Your task to perform on an android device: change text size in settings app Image 0: 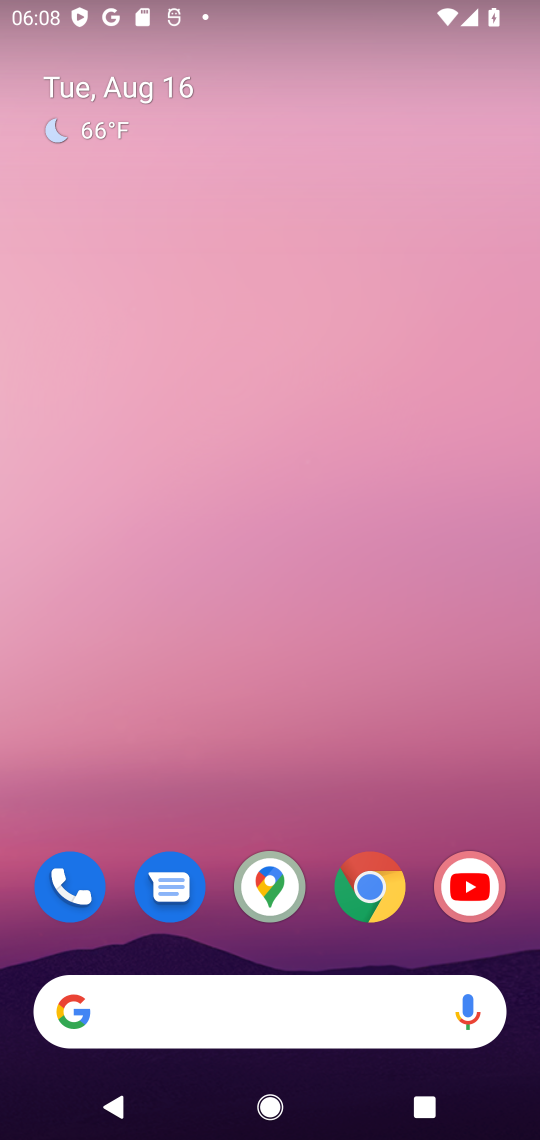
Step 0: drag from (279, 728) to (319, 61)
Your task to perform on an android device: change text size in settings app Image 1: 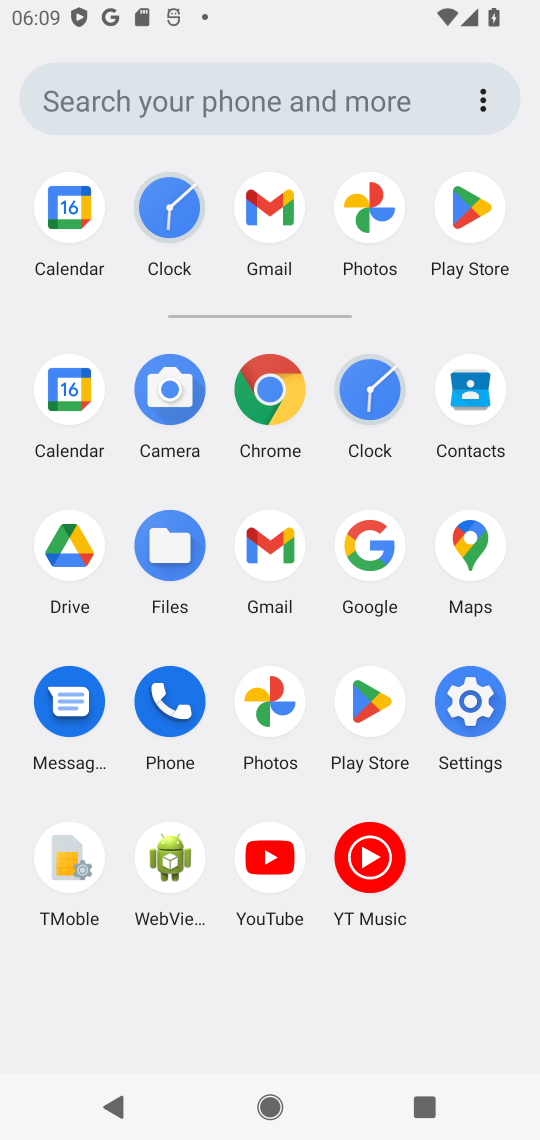
Step 1: click (497, 679)
Your task to perform on an android device: change text size in settings app Image 2: 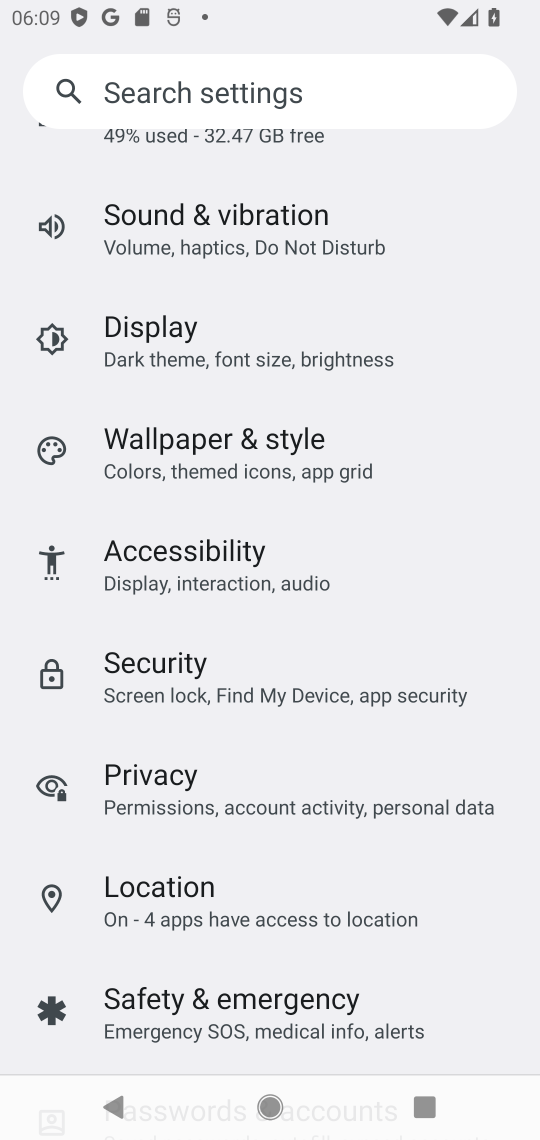
Step 2: click (302, 364)
Your task to perform on an android device: change text size in settings app Image 3: 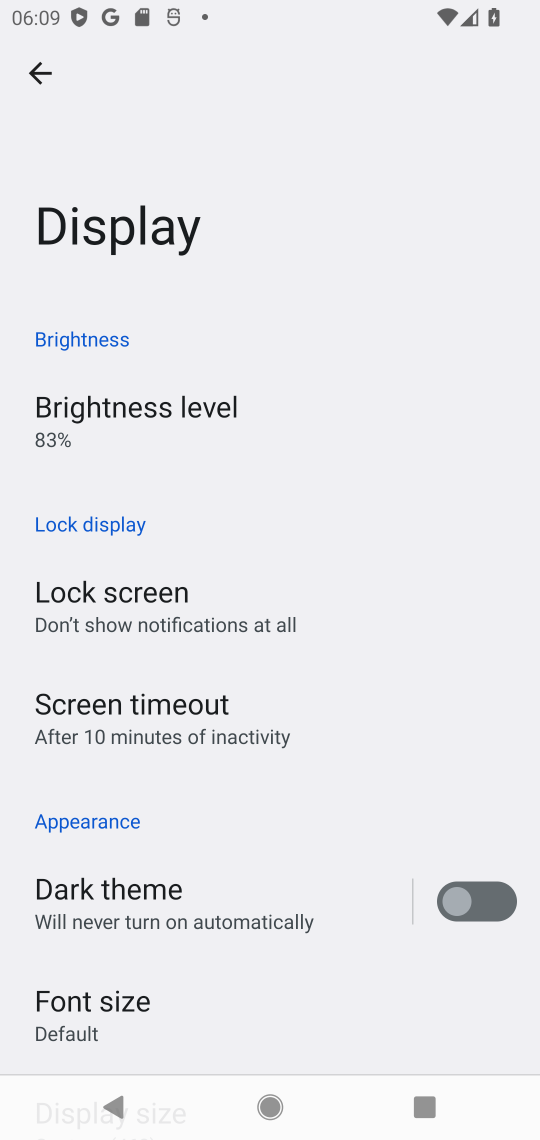
Step 3: click (106, 993)
Your task to perform on an android device: change text size in settings app Image 4: 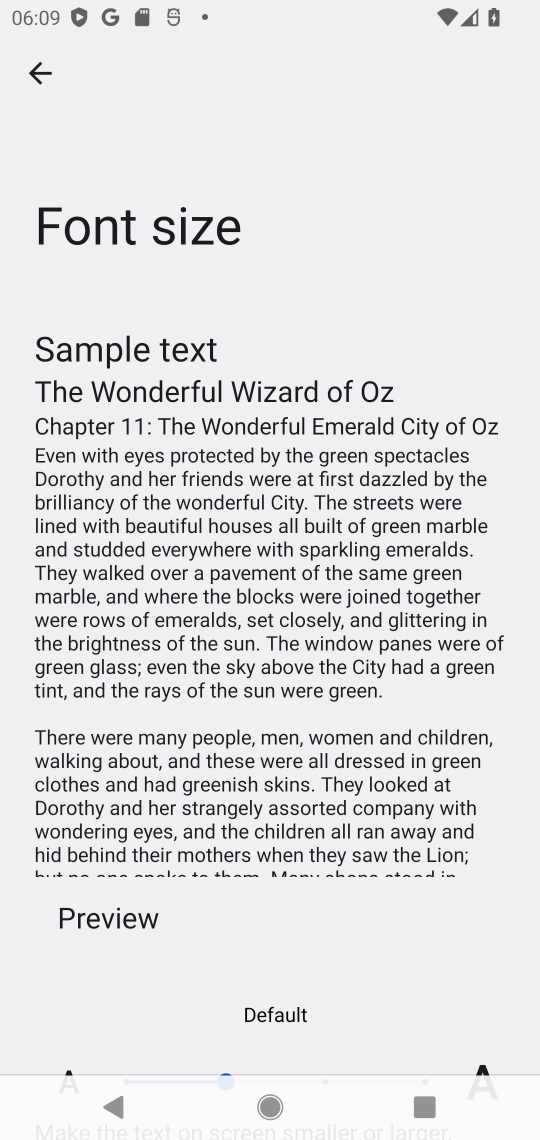
Step 4: drag from (292, 1002) to (418, 359)
Your task to perform on an android device: change text size in settings app Image 5: 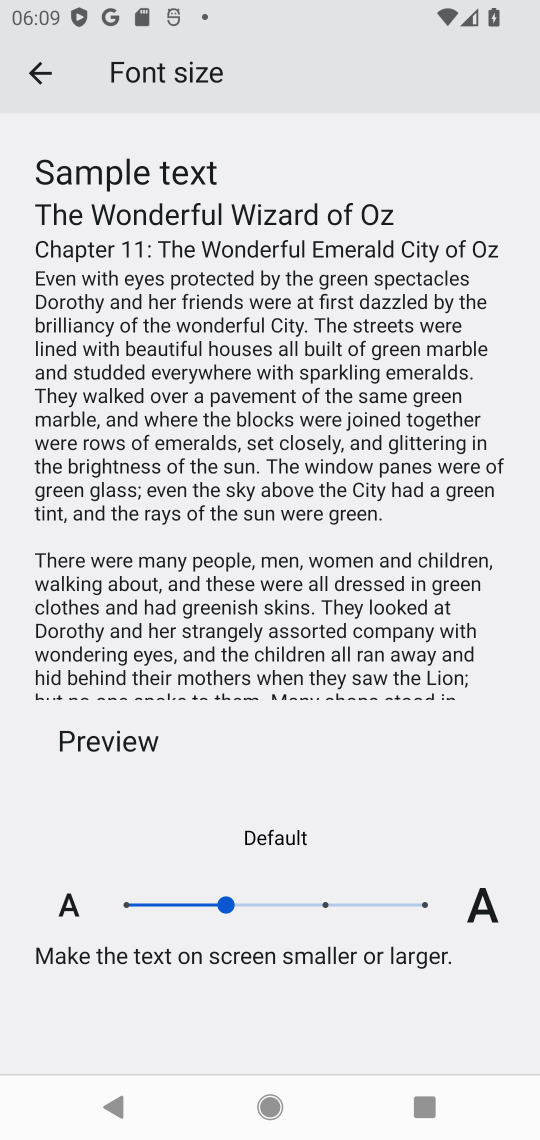
Step 5: click (192, 896)
Your task to perform on an android device: change text size in settings app Image 6: 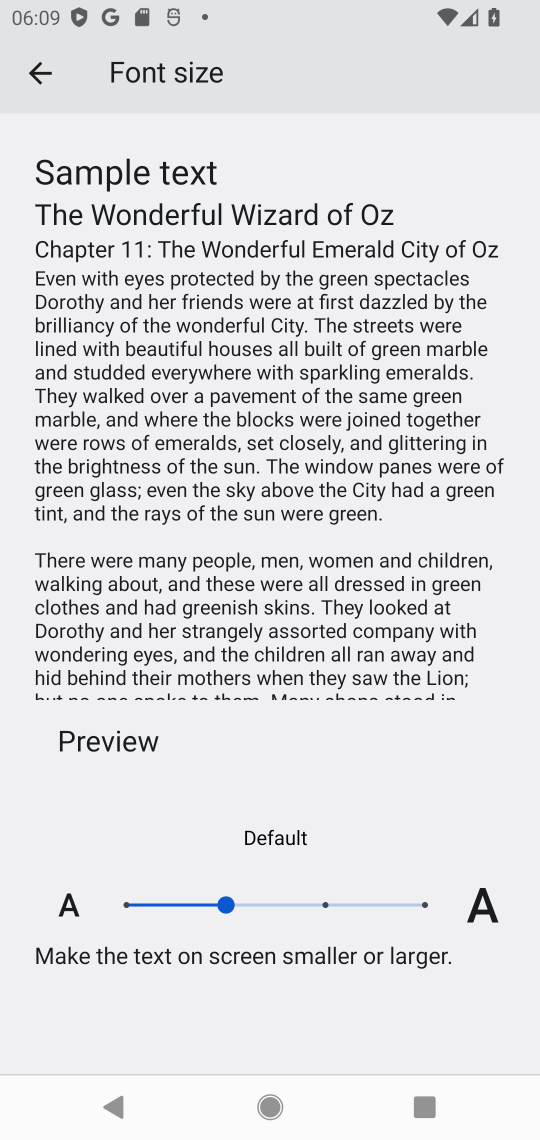
Step 6: click (129, 898)
Your task to perform on an android device: change text size in settings app Image 7: 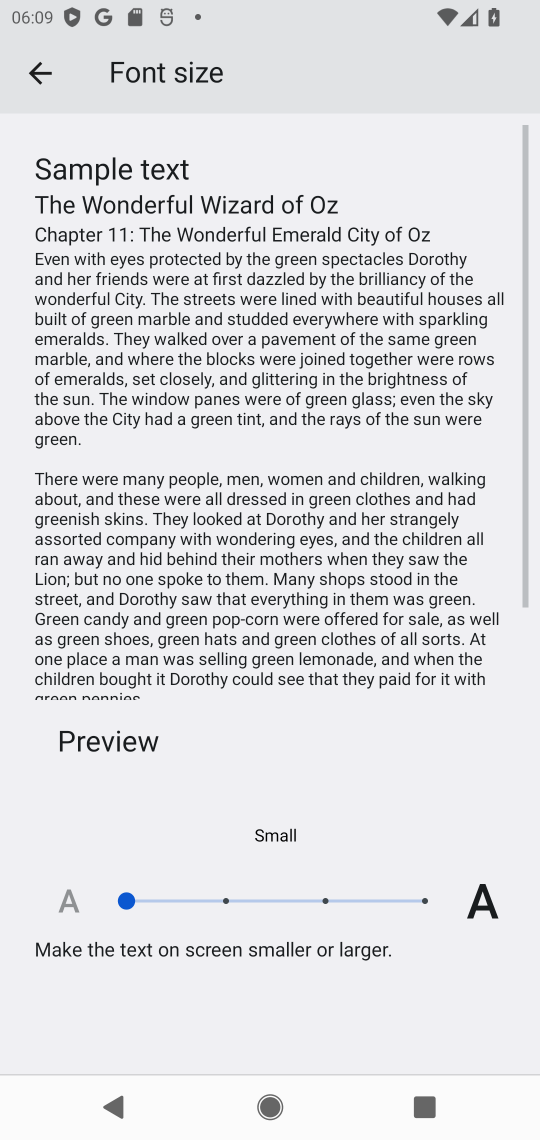
Step 7: task complete